Your task to perform on an android device: Open calendar and show me the first week of next month Image 0: 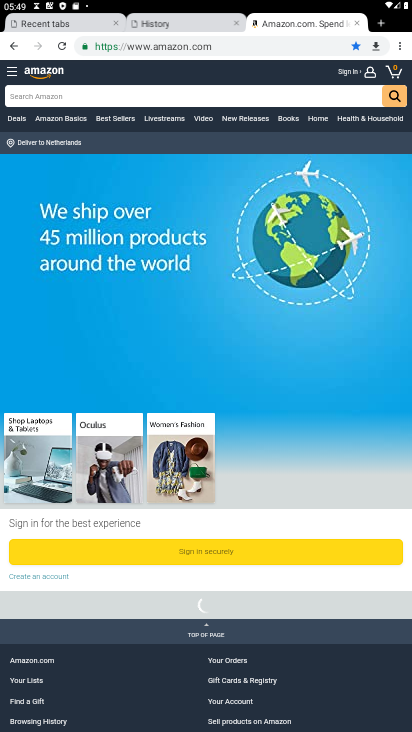
Step 0: press home button
Your task to perform on an android device: Open calendar and show me the first week of next month Image 1: 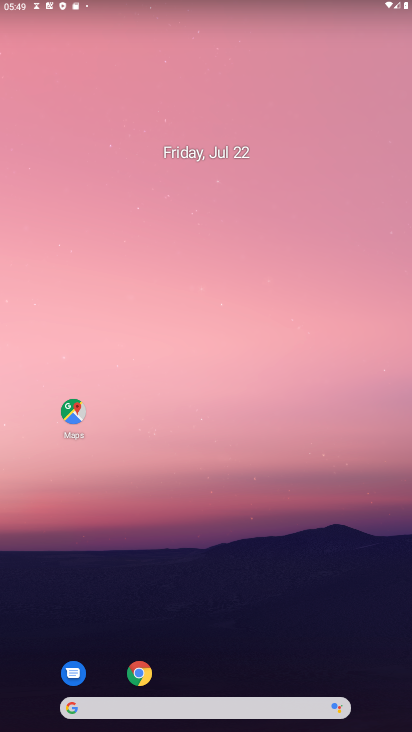
Step 1: drag from (252, 615) to (255, 78)
Your task to perform on an android device: Open calendar and show me the first week of next month Image 2: 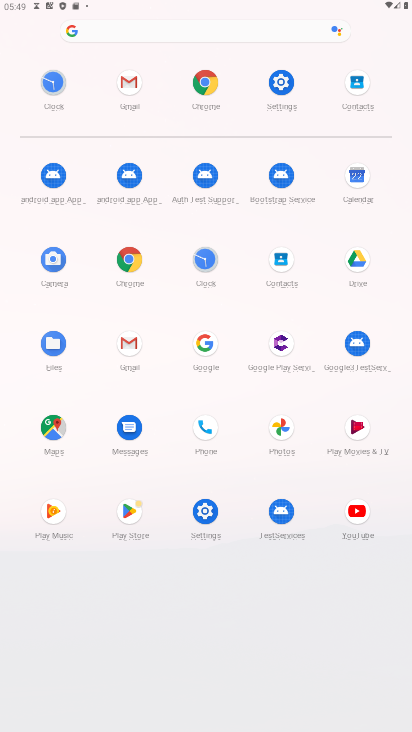
Step 2: click (355, 184)
Your task to perform on an android device: Open calendar and show me the first week of next month Image 3: 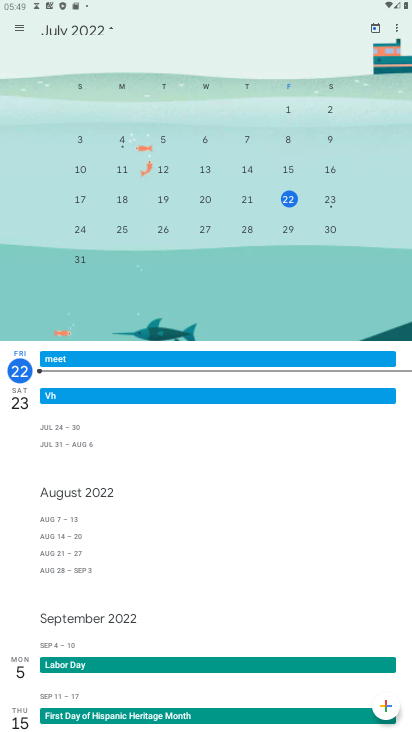
Step 3: drag from (243, 181) to (5, 160)
Your task to perform on an android device: Open calendar and show me the first week of next month Image 4: 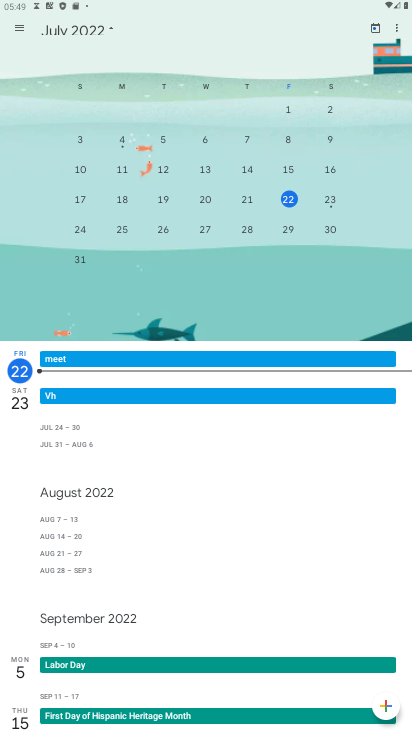
Step 4: drag from (326, 150) to (24, 165)
Your task to perform on an android device: Open calendar and show me the first week of next month Image 5: 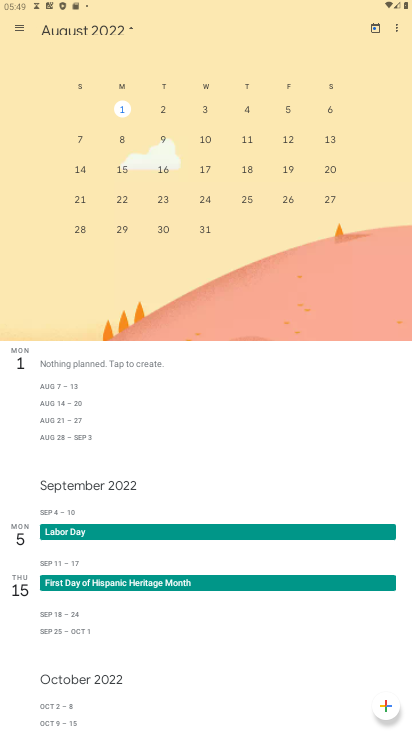
Step 5: click (164, 116)
Your task to perform on an android device: Open calendar and show me the first week of next month Image 6: 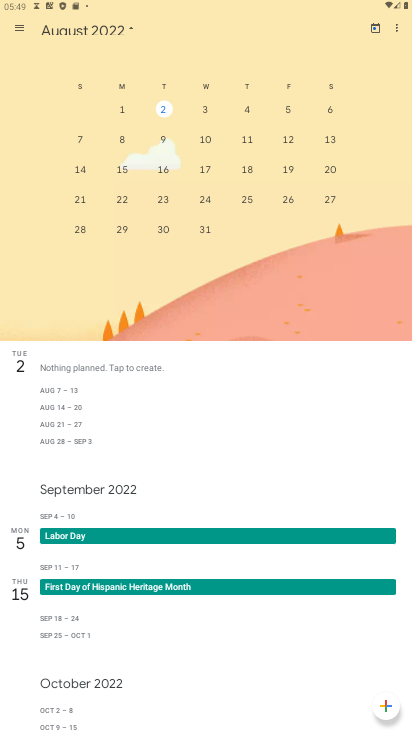
Step 6: click (207, 113)
Your task to perform on an android device: Open calendar and show me the first week of next month Image 7: 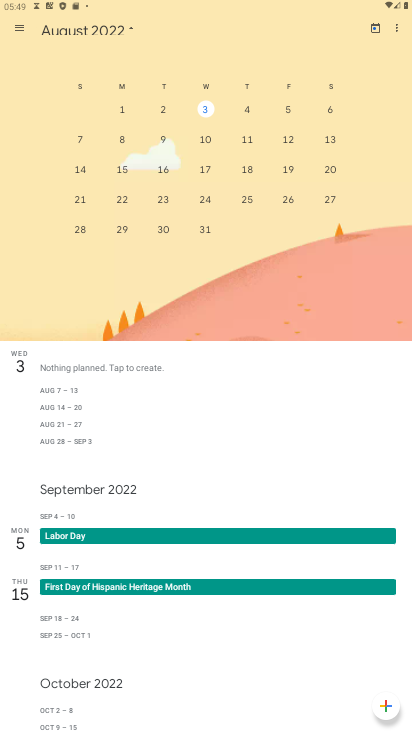
Step 7: click (252, 116)
Your task to perform on an android device: Open calendar and show me the first week of next month Image 8: 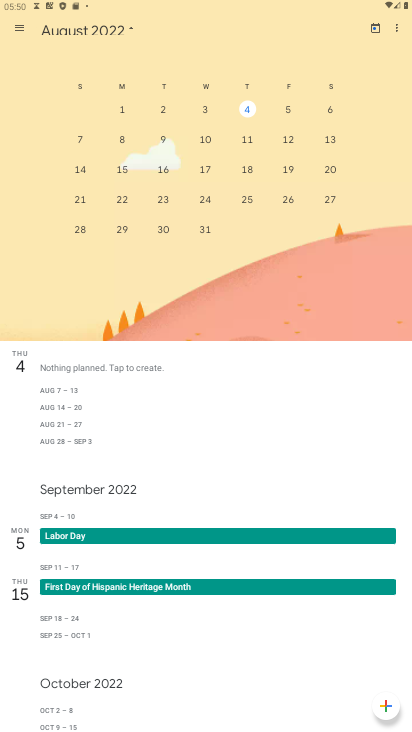
Step 8: click (296, 111)
Your task to perform on an android device: Open calendar and show me the first week of next month Image 9: 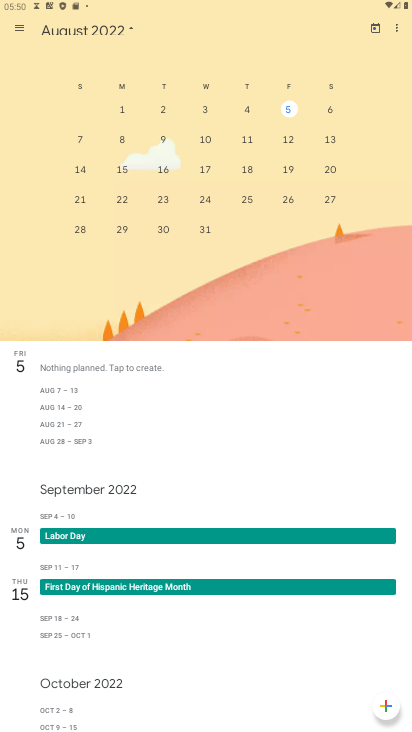
Step 9: click (329, 114)
Your task to perform on an android device: Open calendar and show me the first week of next month Image 10: 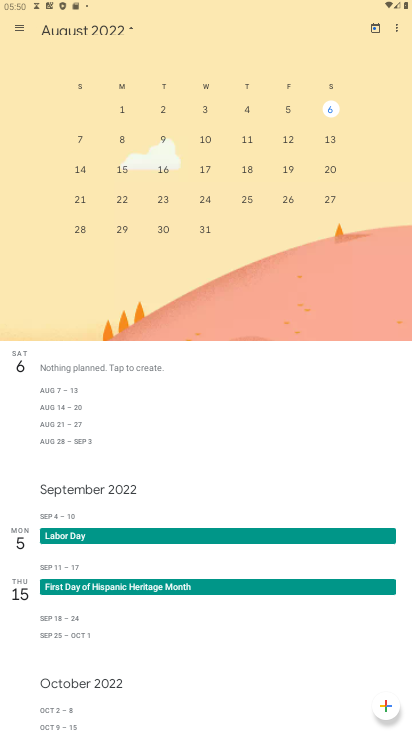
Step 10: click (78, 139)
Your task to perform on an android device: Open calendar and show me the first week of next month Image 11: 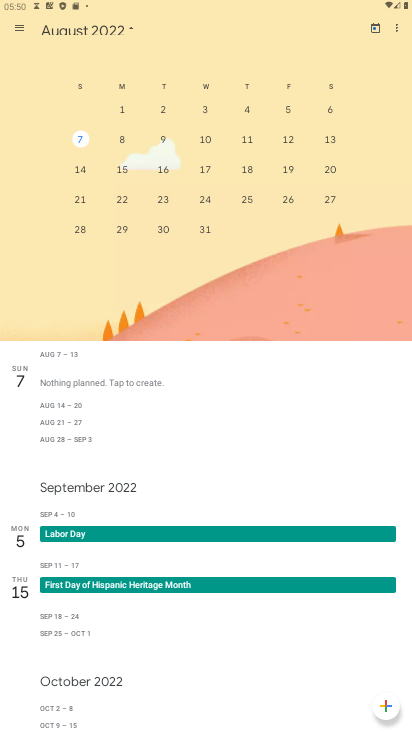
Step 11: task complete